Your task to perform on an android device: add a label to a message in the gmail app Image 0: 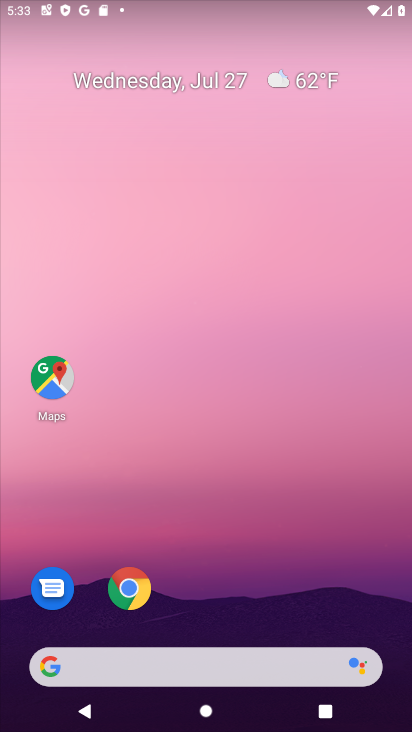
Step 0: drag from (174, 459) to (227, 65)
Your task to perform on an android device: add a label to a message in the gmail app Image 1: 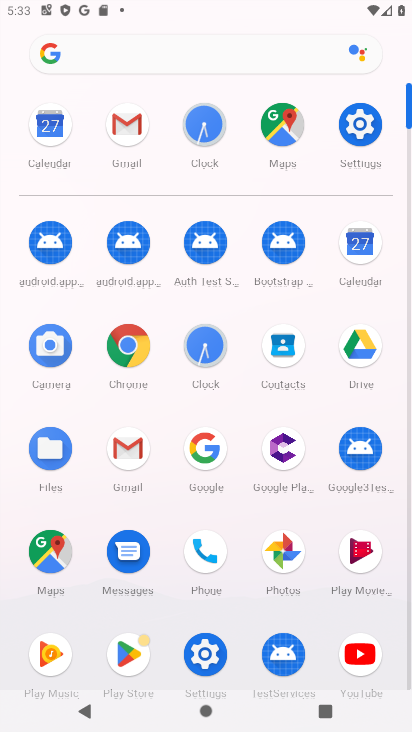
Step 1: click (126, 455)
Your task to perform on an android device: add a label to a message in the gmail app Image 2: 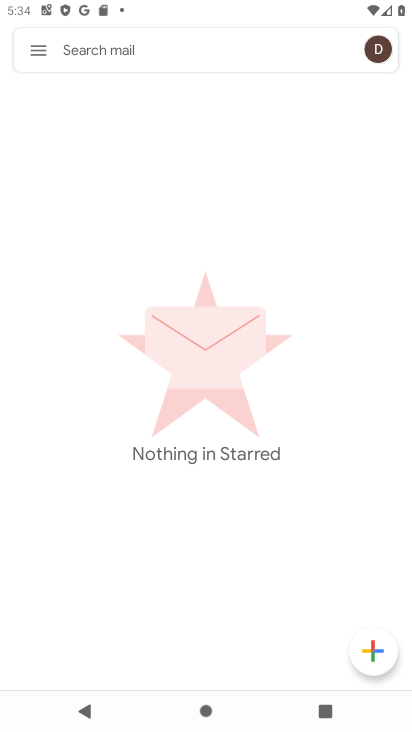
Step 2: click (37, 53)
Your task to perform on an android device: add a label to a message in the gmail app Image 3: 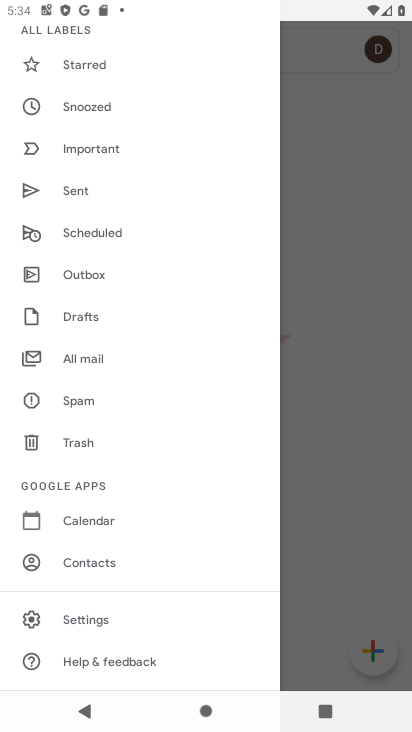
Step 3: click (87, 361)
Your task to perform on an android device: add a label to a message in the gmail app Image 4: 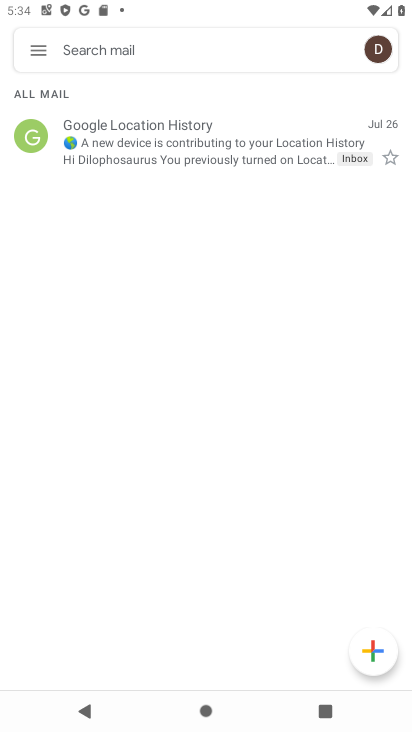
Step 4: click (355, 160)
Your task to perform on an android device: add a label to a message in the gmail app Image 5: 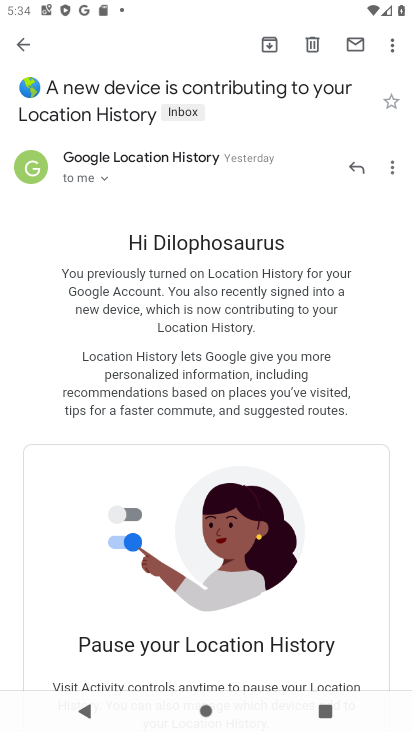
Step 5: click (182, 113)
Your task to perform on an android device: add a label to a message in the gmail app Image 6: 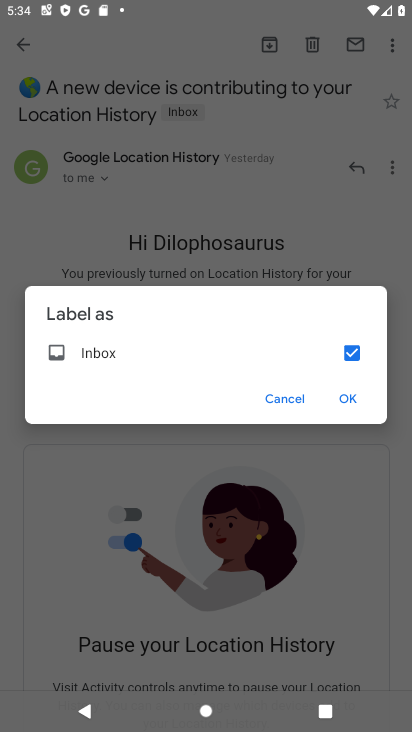
Step 6: click (350, 357)
Your task to perform on an android device: add a label to a message in the gmail app Image 7: 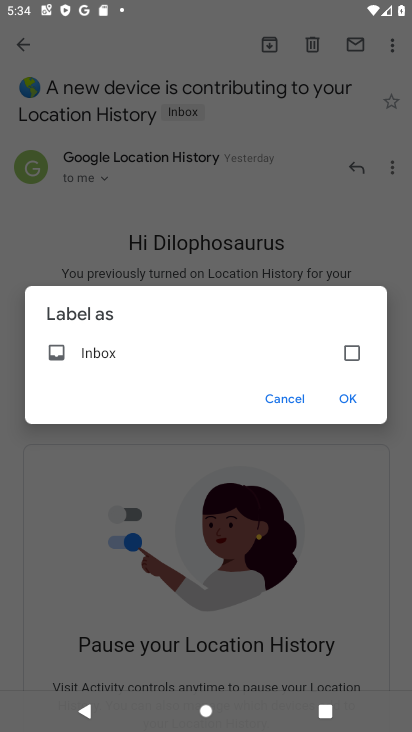
Step 7: click (346, 403)
Your task to perform on an android device: add a label to a message in the gmail app Image 8: 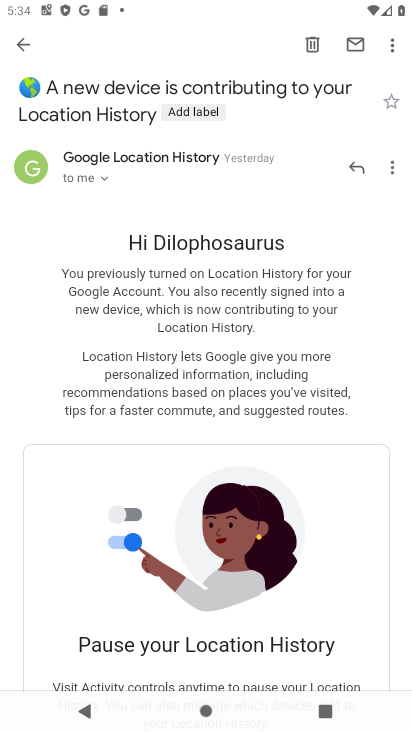
Step 8: task complete